Your task to perform on an android device: Open settings on Google Maps Image 0: 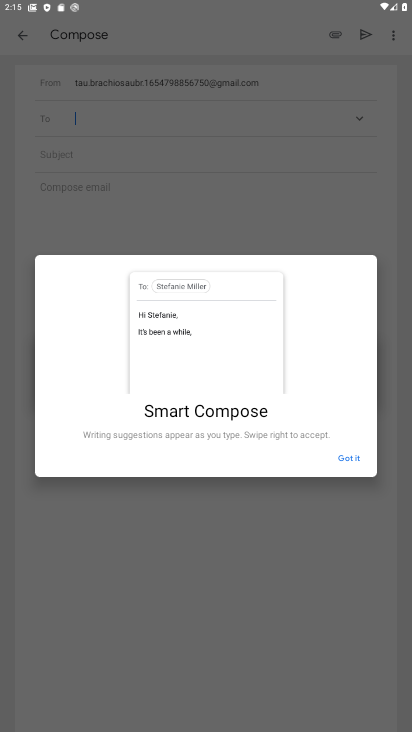
Step 0: press home button
Your task to perform on an android device: Open settings on Google Maps Image 1: 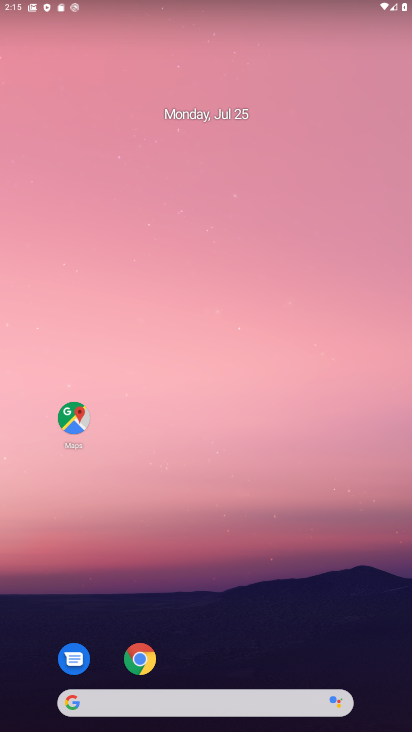
Step 1: click (75, 415)
Your task to perform on an android device: Open settings on Google Maps Image 2: 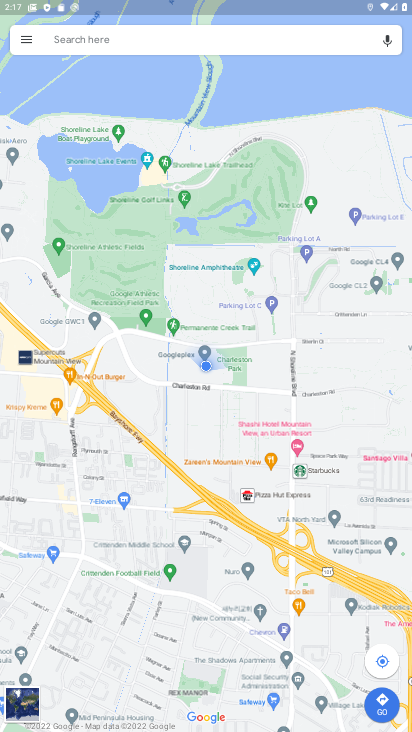
Step 2: click (19, 40)
Your task to perform on an android device: Open settings on Google Maps Image 3: 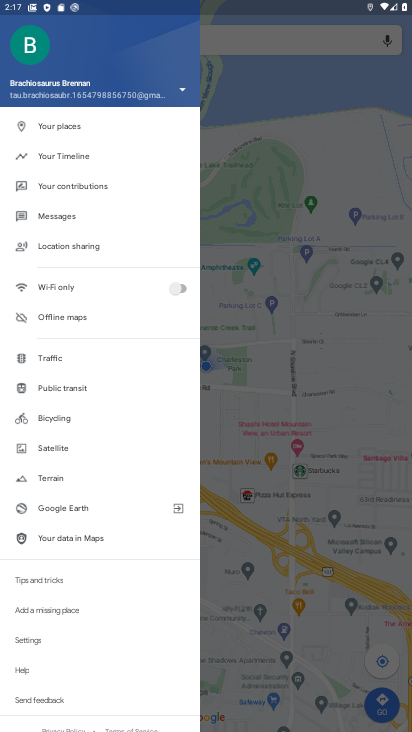
Step 3: click (43, 638)
Your task to perform on an android device: Open settings on Google Maps Image 4: 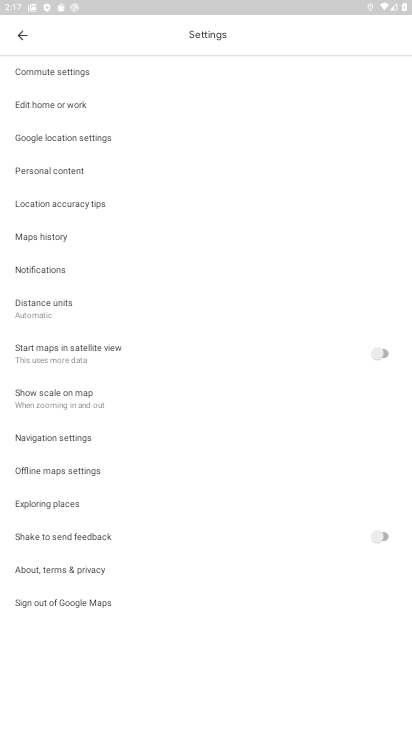
Step 4: task complete